Your task to perform on an android device: delete a single message in the gmail app Image 0: 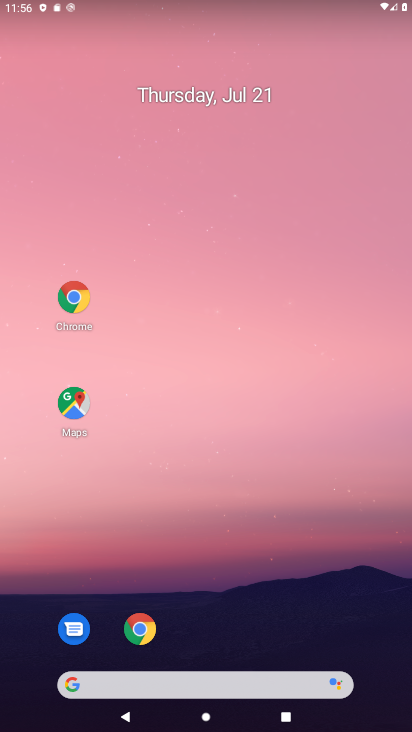
Step 0: drag from (233, 548) to (189, 230)
Your task to perform on an android device: delete a single message in the gmail app Image 1: 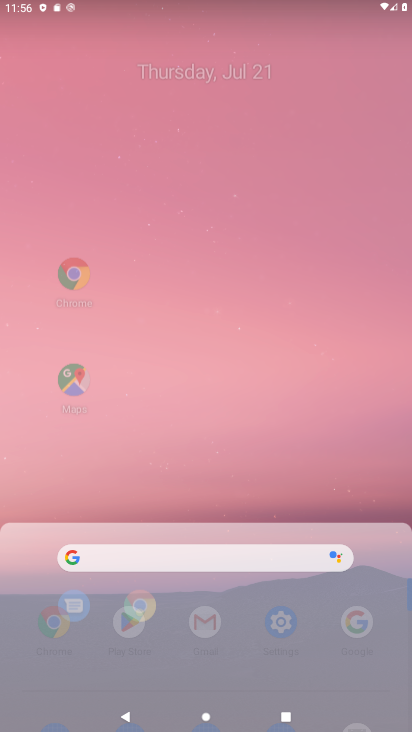
Step 1: drag from (261, 654) to (258, 245)
Your task to perform on an android device: delete a single message in the gmail app Image 2: 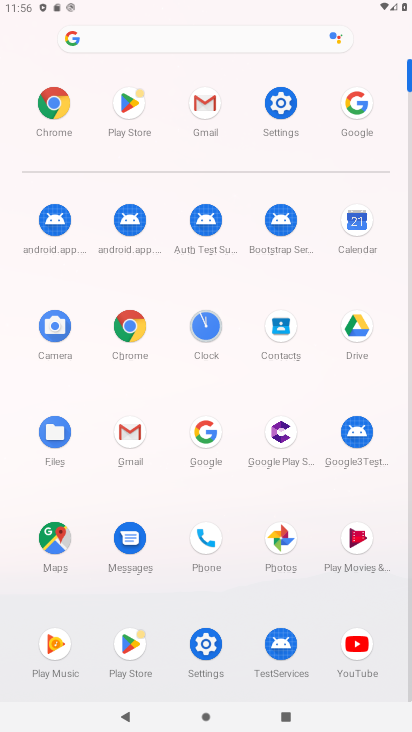
Step 2: drag from (304, 574) to (304, 312)
Your task to perform on an android device: delete a single message in the gmail app Image 3: 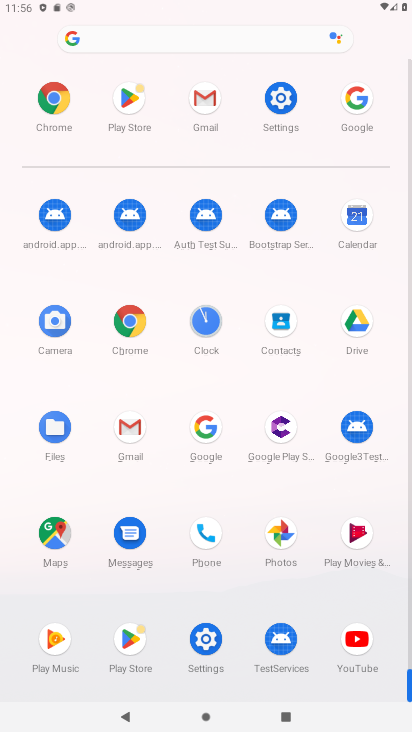
Step 3: click (136, 423)
Your task to perform on an android device: delete a single message in the gmail app Image 4: 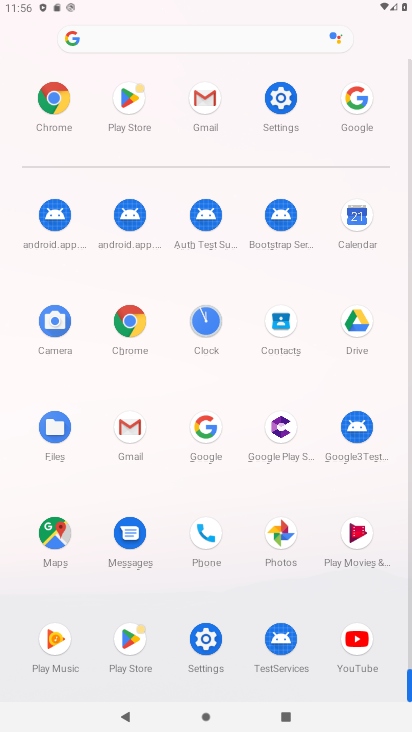
Step 4: click (138, 423)
Your task to perform on an android device: delete a single message in the gmail app Image 5: 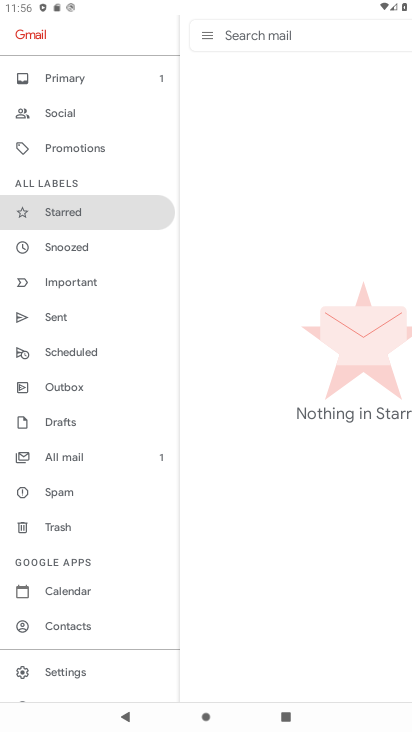
Step 5: click (63, 457)
Your task to perform on an android device: delete a single message in the gmail app Image 6: 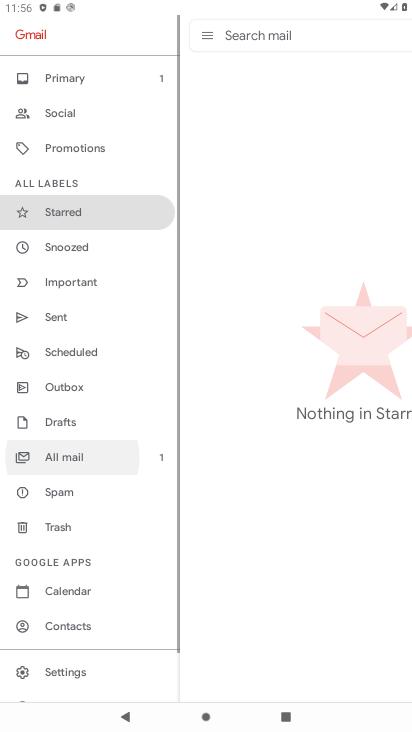
Step 6: click (64, 456)
Your task to perform on an android device: delete a single message in the gmail app Image 7: 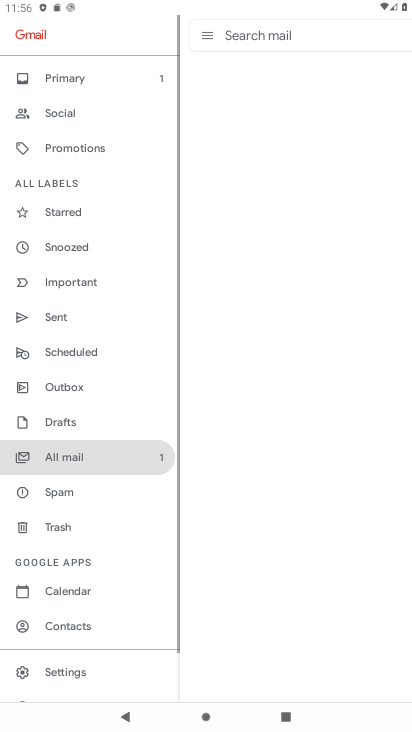
Step 7: click (65, 455)
Your task to perform on an android device: delete a single message in the gmail app Image 8: 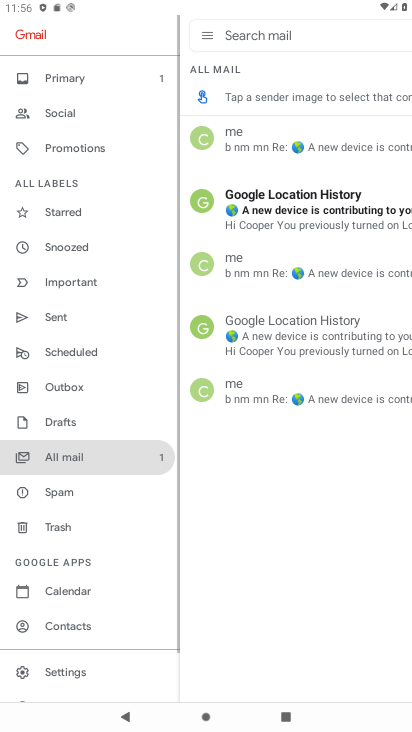
Step 8: click (72, 455)
Your task to perform on an android device: delete a single message in the gmail app Image 9: 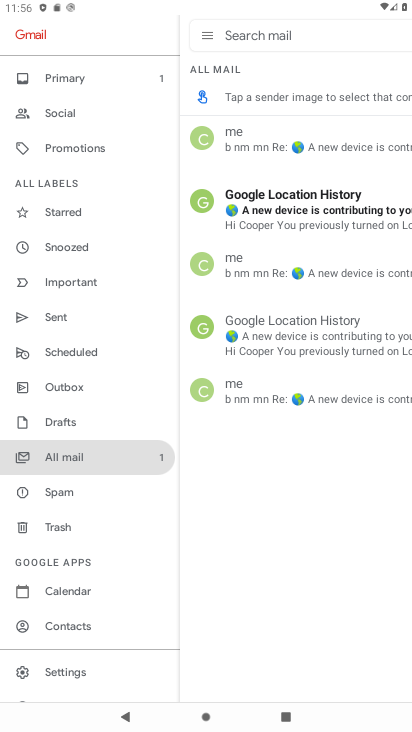
Step 9: click (283, 215)
Your task to perform on an android device: delete a single message in the gmail app Image 10: 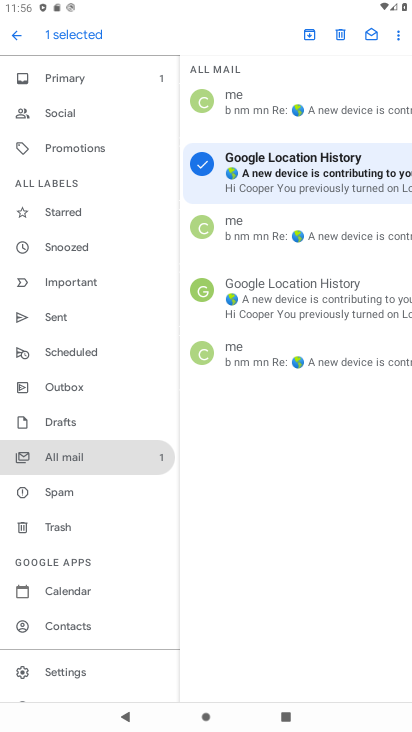
Step 10: click (339, 26)
Your task to perform on an android device: delete a single message in the gmail app Image 11: 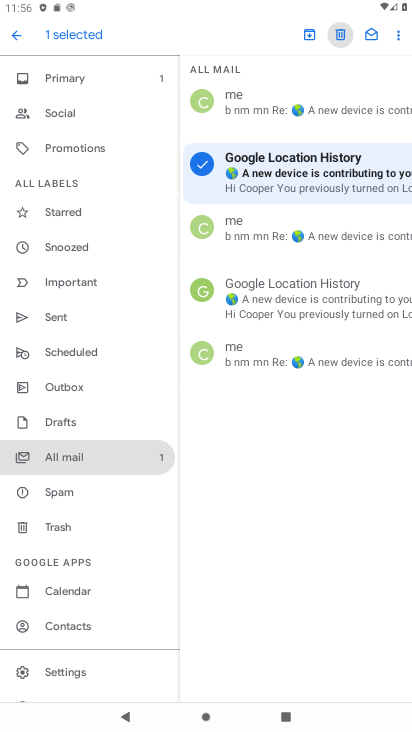
Step 11: click (339, 36)
Your task to perform on an android device: delete a single message in the gmail app Image 12: 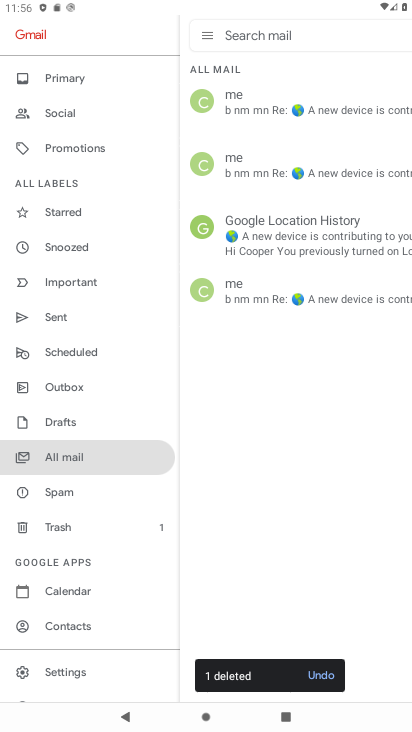
Step 12: task complete